Your task to perform on an android device: Show me popular videos on Youtube Image 0: 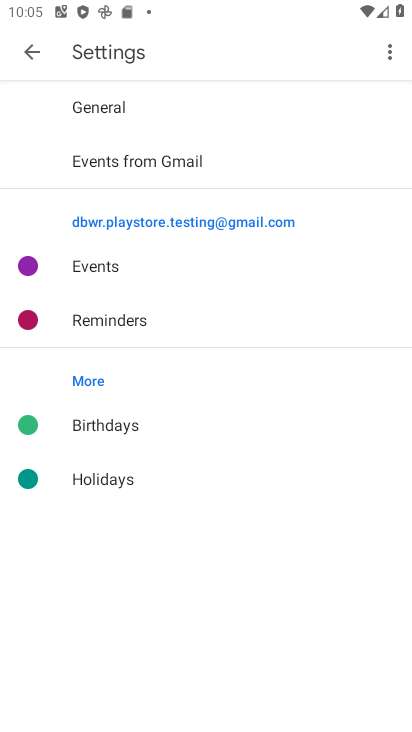
Step 0: press home button
Your task to perform on an android device: Show me popular videos on Youtube Image 1: 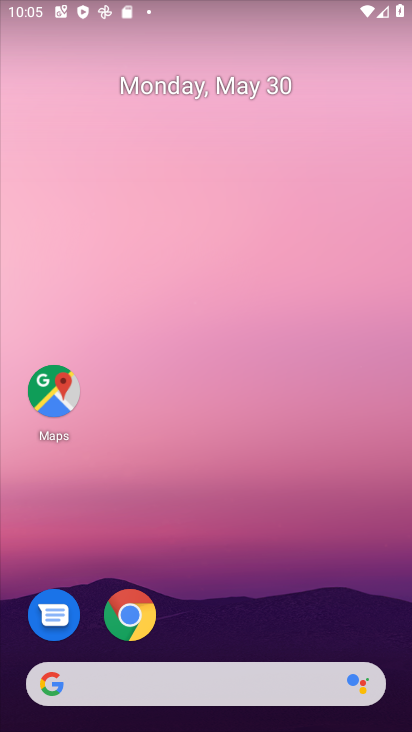
Step 1: drag from (274, 472) to (214, 48)
Your task to perform on an android device: Show me popular videos on Youtube Image 2: 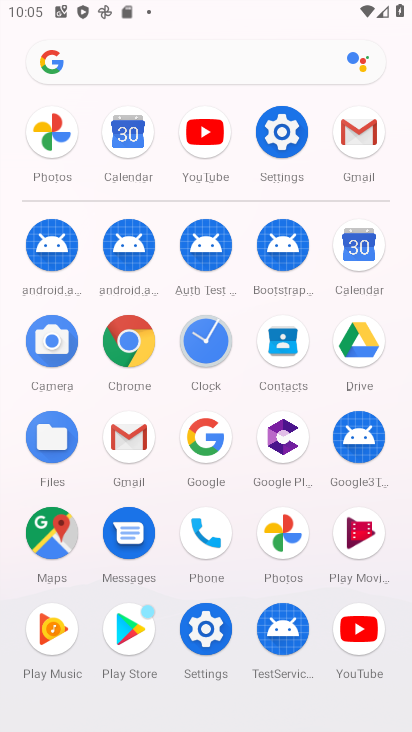
Step 2: click (206, 136)
Your task to perform on an android device: Show me popular videos on Youtube Image 3: 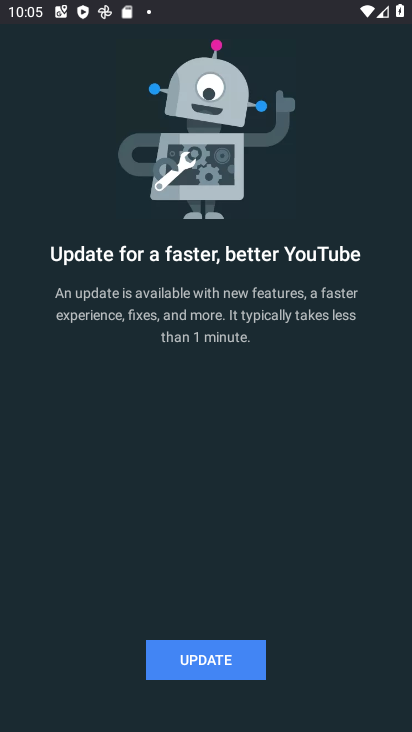
Step 3: click (239, 654)
Your task to perform on an android device: Show me popular videos on Youtube Image 4: 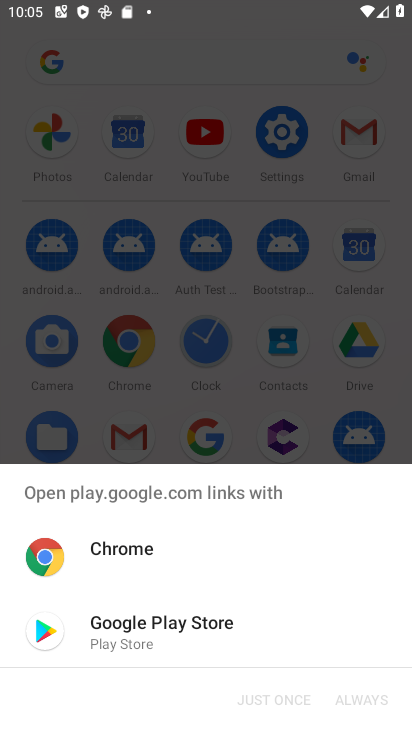
Step 4: click (177, 619)
Your task to perform on an android device: Show me popular videos on Youtube Image 5: 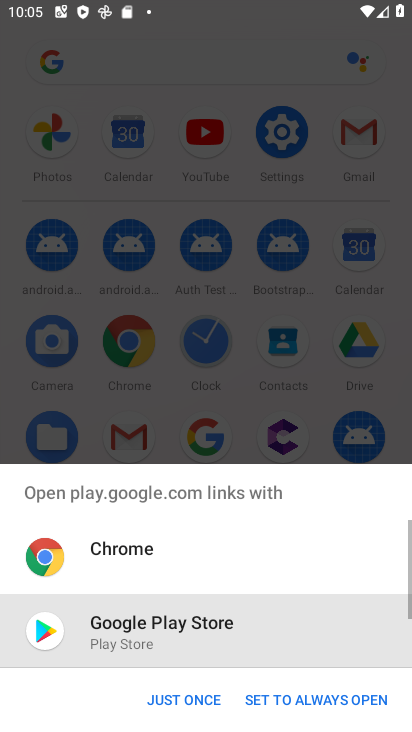
Step 5: click (148, 699)
Your task to perform on an android device: Show me popular videos on Youtube Image 6: 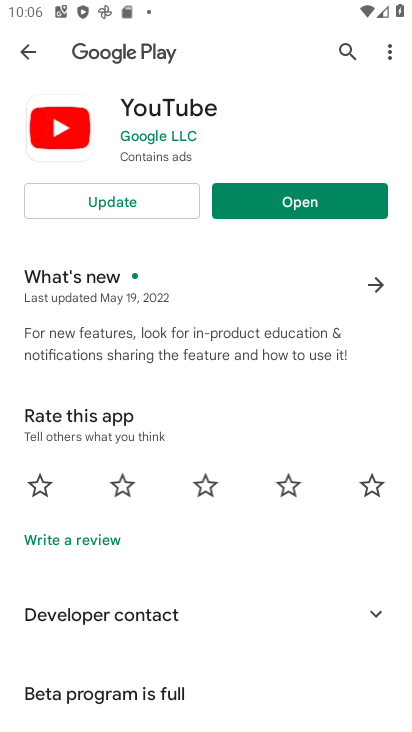
Step 6: click (133, 191)
Your task to perform on an android device: Show me popular videos on Youtube Image 7: 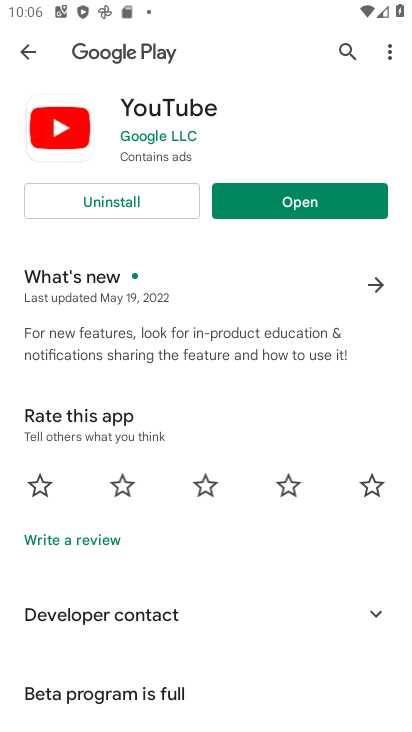
Step 7: click (299, 208)
Your task to perform on an android device: Show me popular videos on Youtube Image 8: 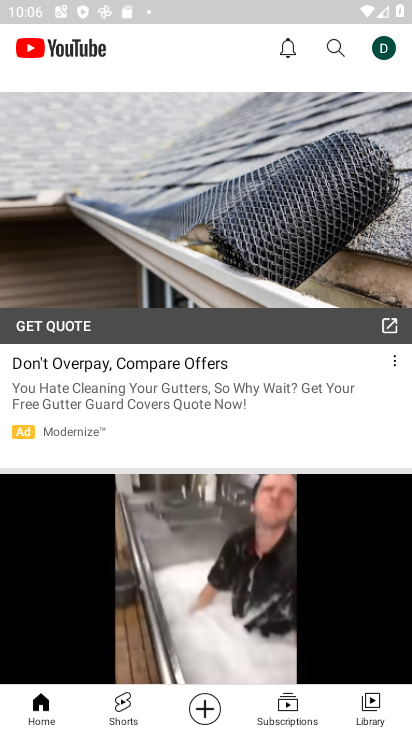
Step 8: drag from (136, 261) to (136, 549)
Your task to perform on an android device: Show me popular videos on Youtube Image 9: 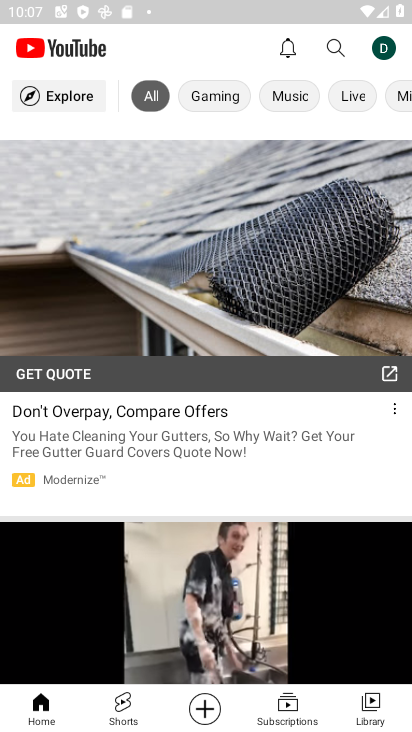
Step 9: click (45, 89)
Your task to perform on an android device: Show me popular videos on Youtube Image 10: 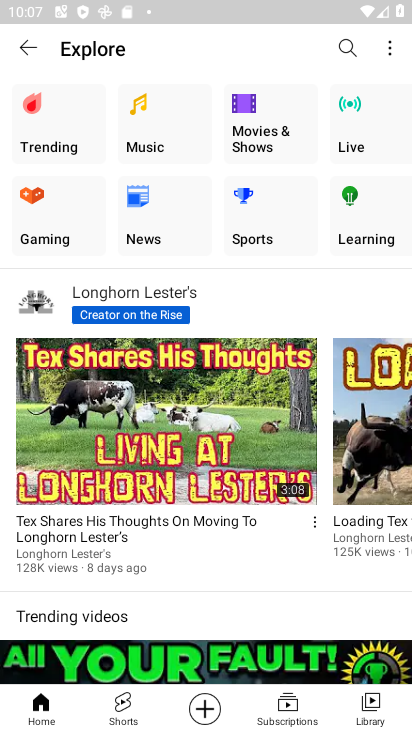
Step 10: click (37, 122)
Your task to perform on an android device: Show me popular videos on Youtube Image 11: 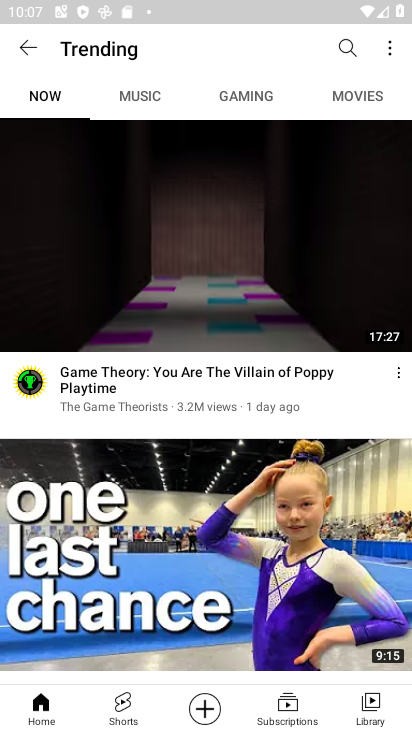
Step 11: task complete